Your task to perform on an android device: turn on location history Image 0: 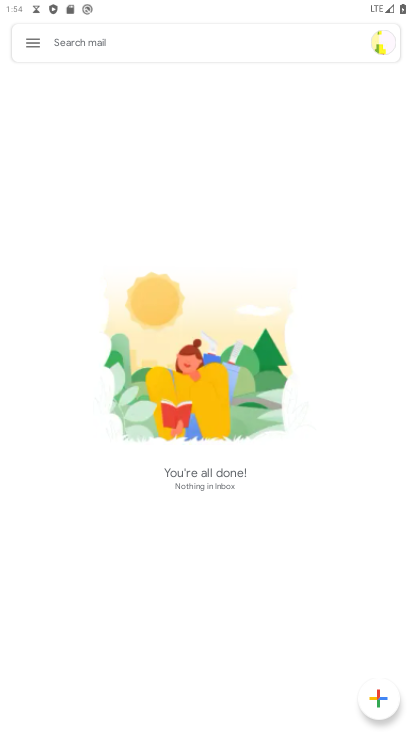
Step 0: press home button
Your task to perform on an android device: turn on location history Image 1: 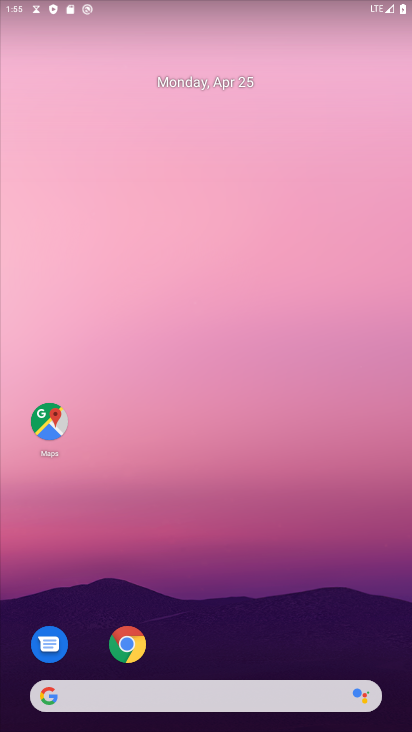
Step 1: click (44, 425)
Your task to perform on an android device: turn on location history Image 2: 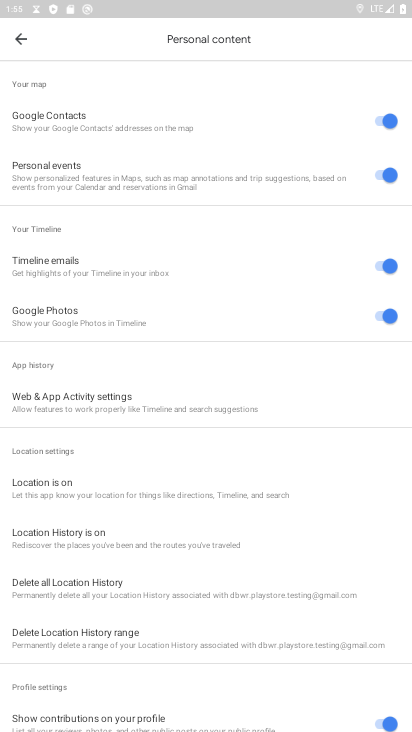
Step 2: click (86, 543)
Your task to perform on an android device: turn on location history Image 3: 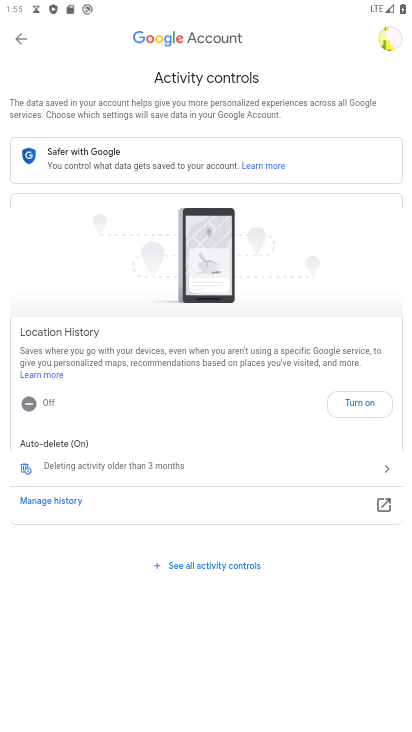
Step 3: click (367, 410)
Your task to perform on an android device: turn on location history Image 4: 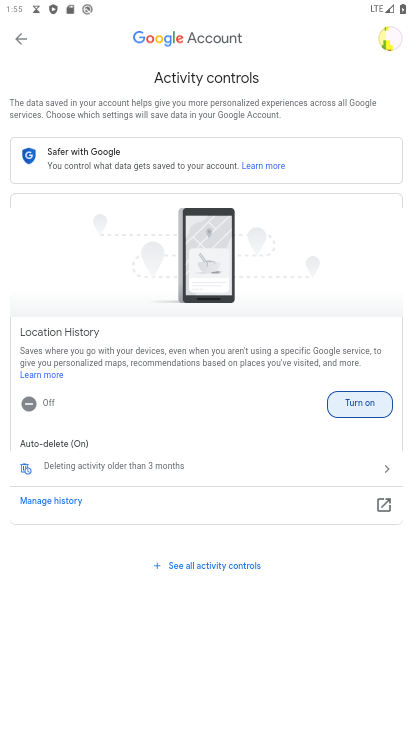
Step 4: click (367, 398)
Your task to perform on an android device: turn on location history Image 5: 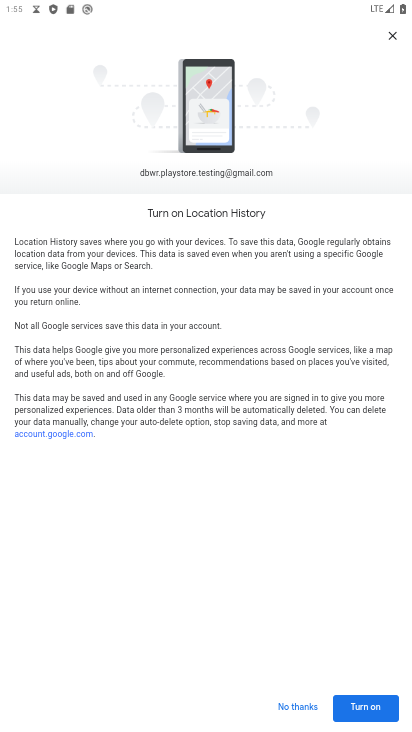
Step 5: click (371, 716)
Your task to perform on an android device: turn on location history Image 6: 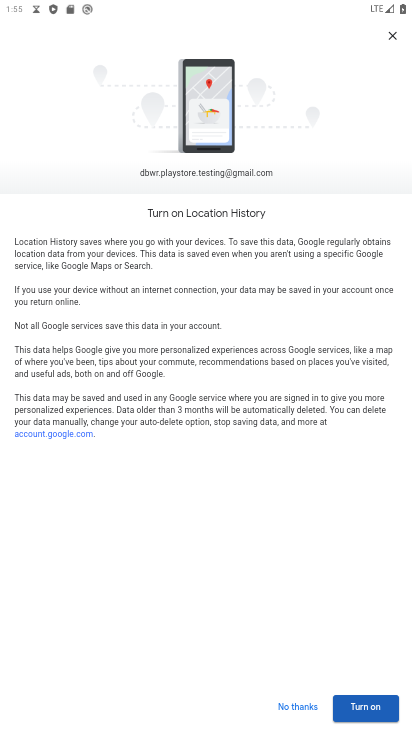
Step 6: click (378, 709)
Your task to perform on an android device: turn on location history Image 7: 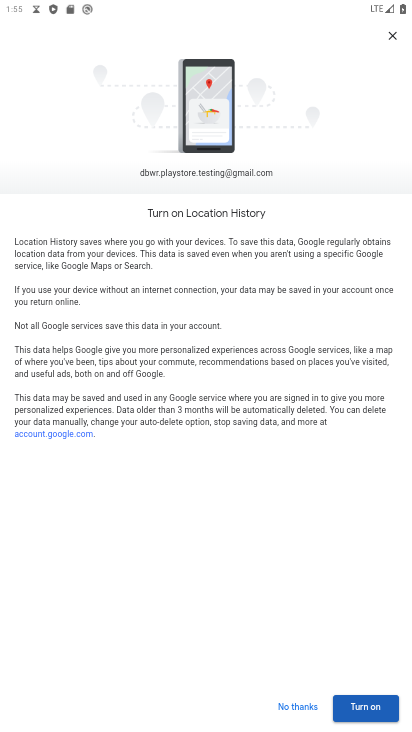
Step 7: click (363, 709)
Your task to perform on an android device: turn on location history Image 8: 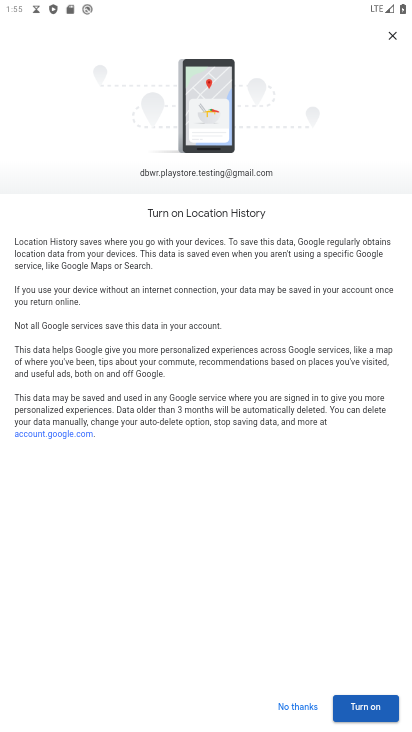
Step 8: drag from (268, 626) to (271, 544)
Your task to perform on an android device: turn on location history Image 9: 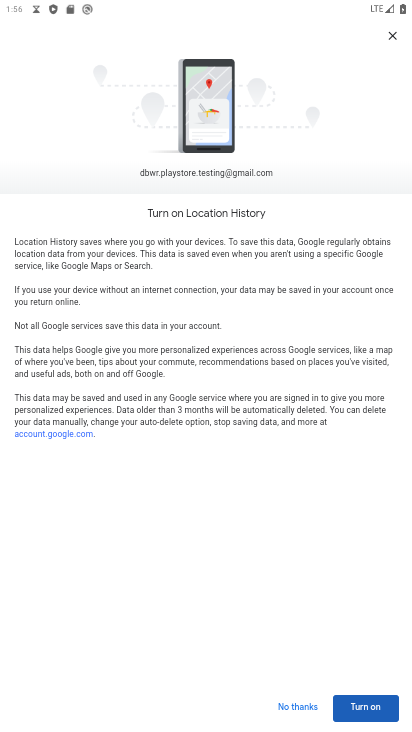
Step 9: click (365, 710)
Your task to perform on an android device: turn on location history Image 10: 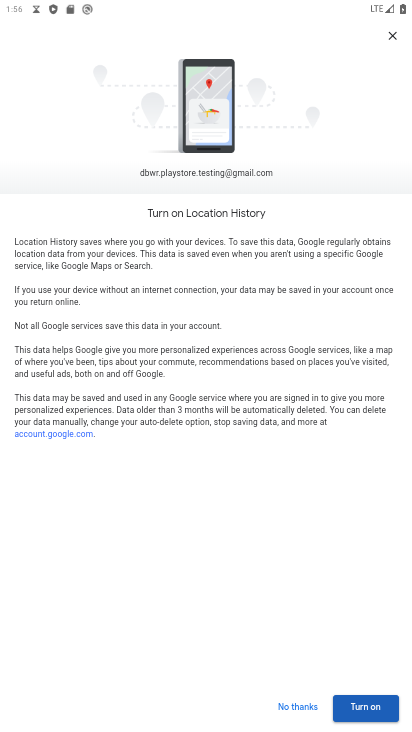
Step 10: drag from (259, 431) to (259, 266)
Your task to perform on an android device: turn on location history Image 11: 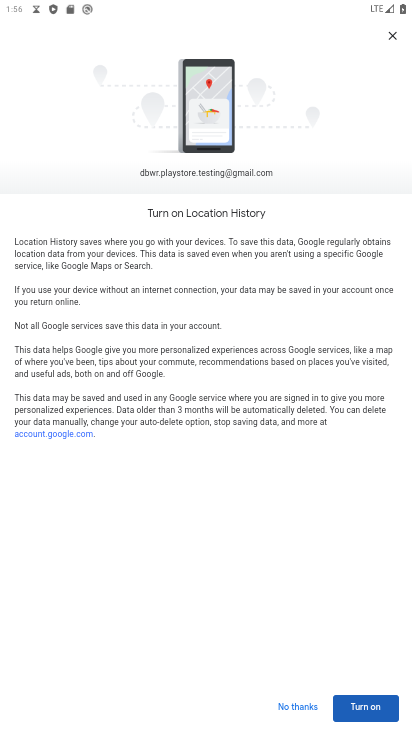
Step 11: click (371, 711)
Your task to perform on an android device: turn on location history Image 12: 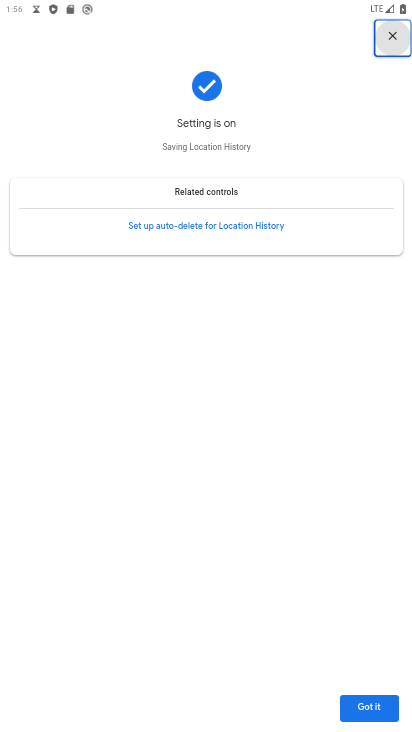
Step 12: click (376, 709)
Your task to perform on an android device: turn on location history Image 13: 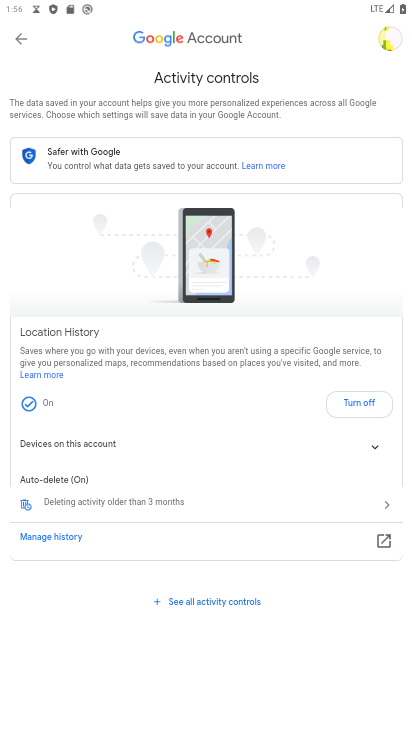
Step 13: task complete